Your task to perform on an android device: Search for Italian restaurants on Maps Image 0: 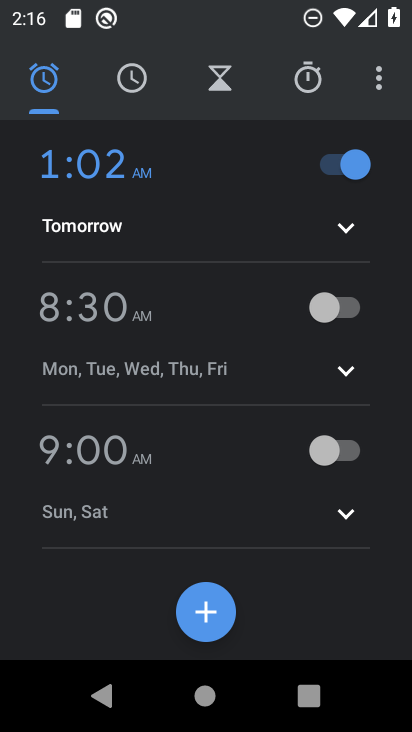
Step 0: press home button
Your task to perform on an android device: Search for Italian restaurants on Maps Image 1: 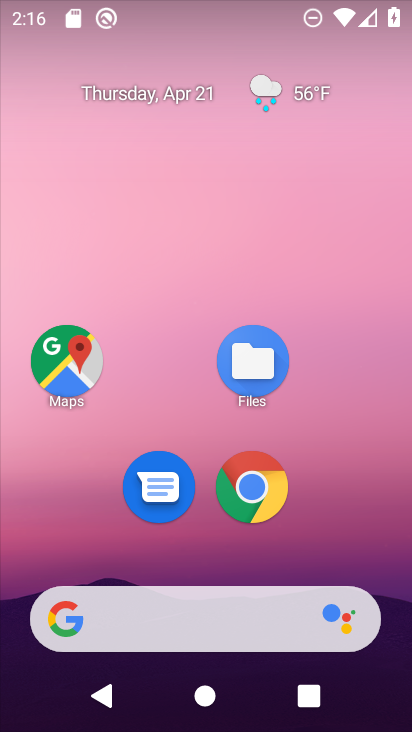
Step 1: drag from (353, 503) to (361, 92)
Your task to perform on an android device: Search for Italian restaurants on Maps Image 2: 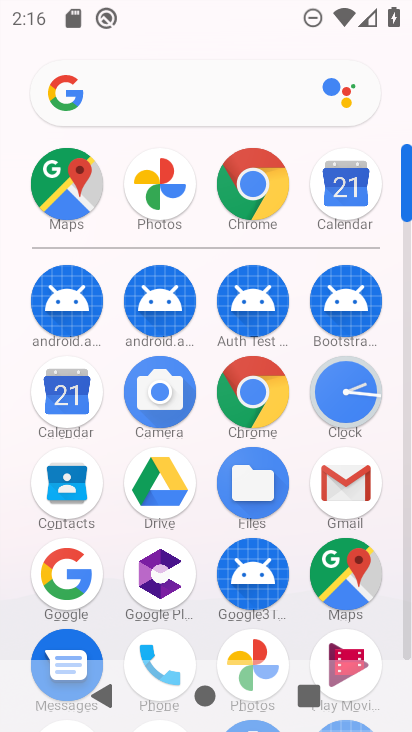
Step 2: click (367, 593)
Your task to perform on an android device: Search for Italian restaurants on Maps Image 3: 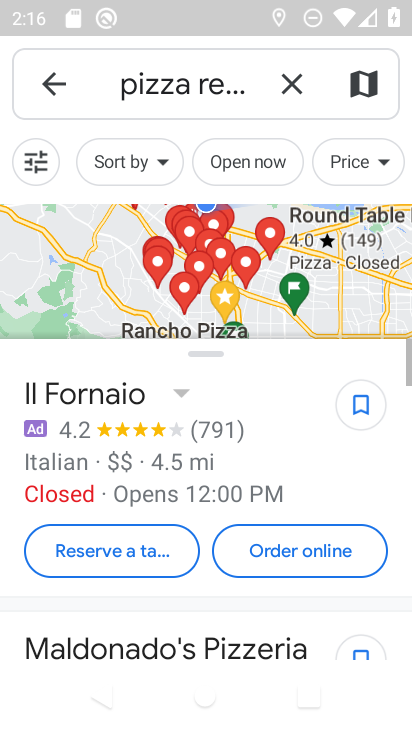
Step 3: click (283, 85)
Your task to perform on an android device: Search for Italian restaurants on Maps Image 4: 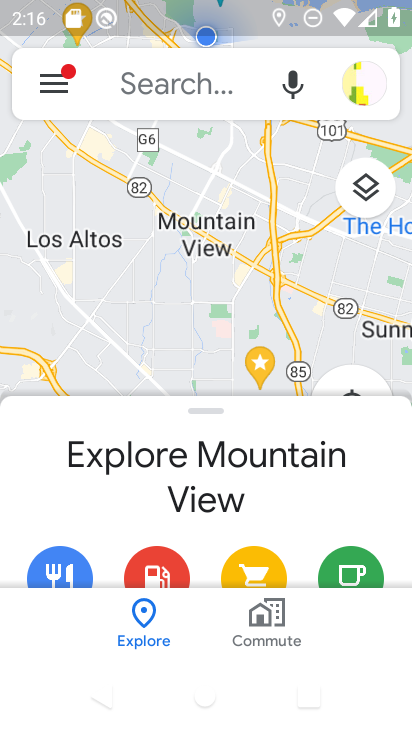
Step 4: click (191, 88)
Your task to perform on an android device: Search for Italian restaurants on Maps Image 5: 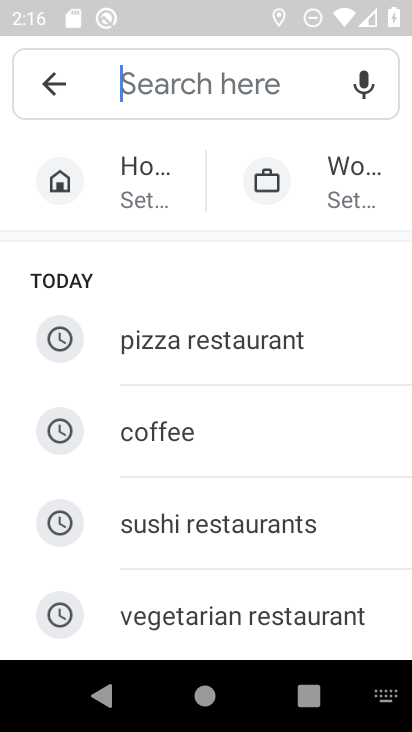
Step 5: type "italian restaurants"
Your task to perform on an android device: Search for Italian restaurants on Maps Image 6: 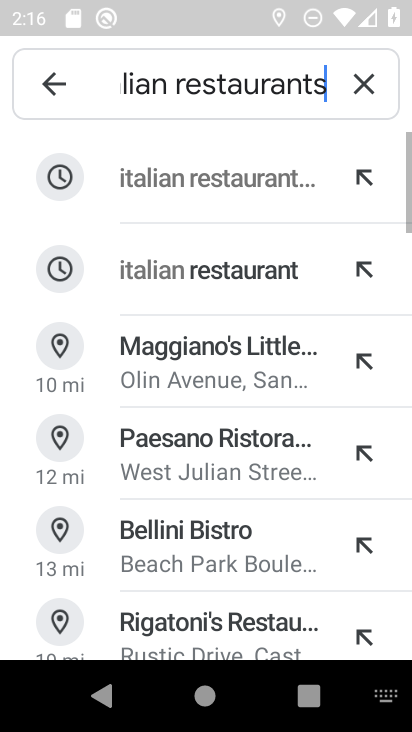
Step 6: click (206, 174)
Your task to perform on an android device: Search for Italian restaurants on Maps Image 7: 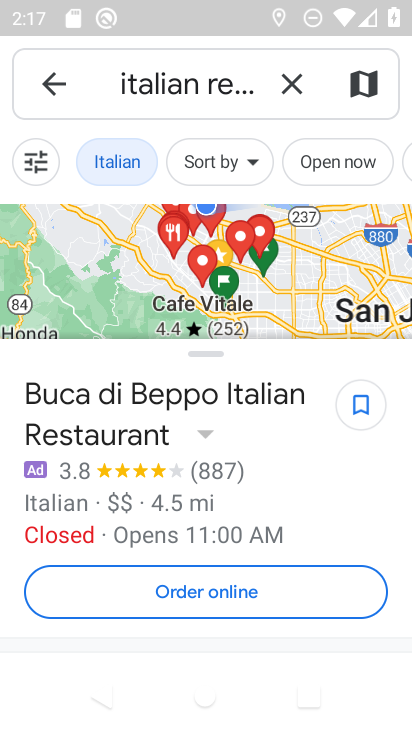
Step 7: task complete